Your task to perform on an android device: turn smart compose on in the gmail app Image 0: 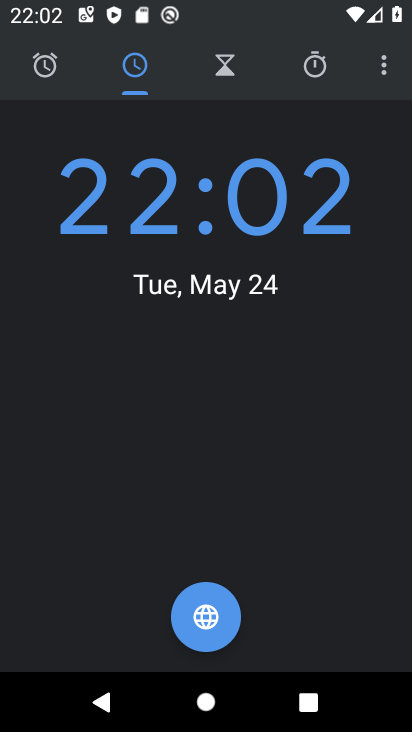
Step 0: press home button
Your task to perform on an android device: turn smart compose on in the gmail app Image 1: 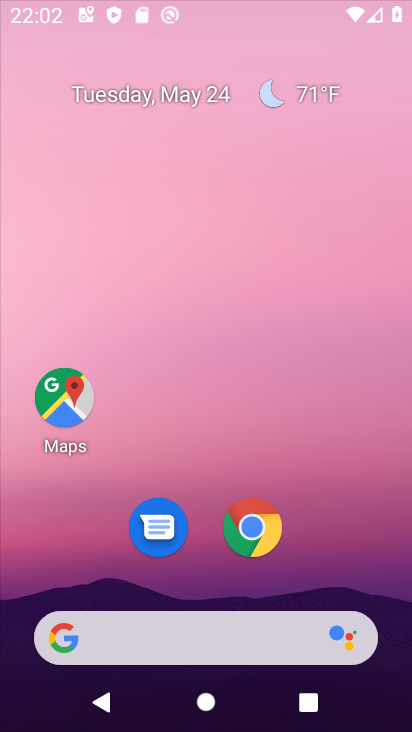
Step 1: drag from (159, 564) to (180, 29)
Your task to perform on an android device: turn smart compose on in the gmail app Image 2: 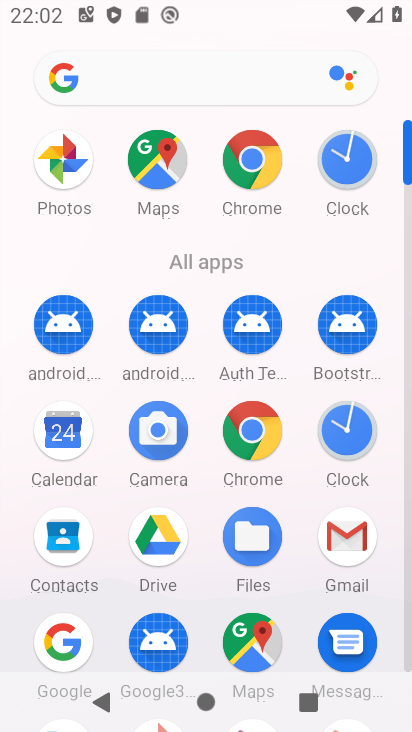
Step 2: click (353, 519)
Your task to perform on an android device: turn smart compose on in the gmail app Image 3: 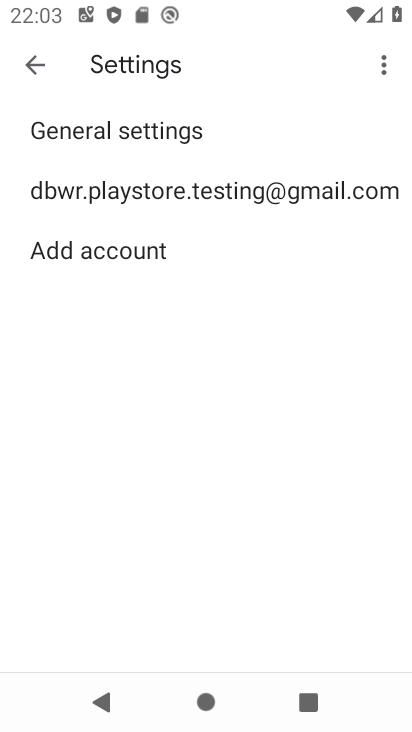
Step 3: click (98, 191)
Your task to perform on an android device: turn smart compose on in the gmail app Image 4: 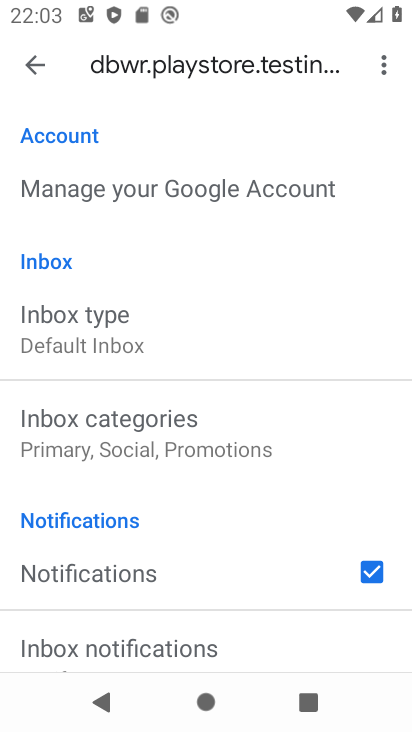
Step 4: task complete